Your task to perform on an android device: create a new album in the google photos Image 0: 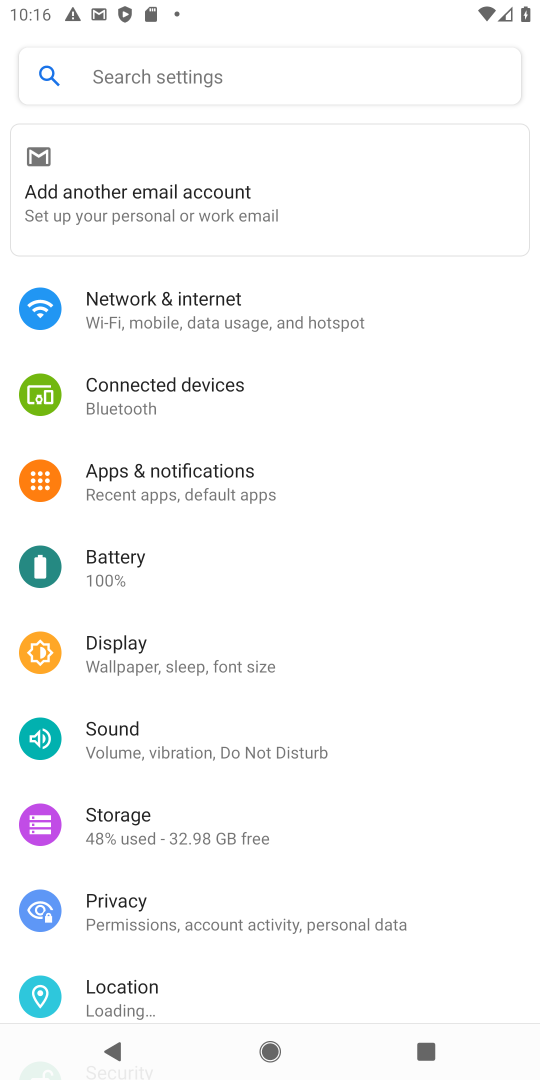
Step 0: press home button
Your task to perform on an android device: create a new album in the google photos Image 1: 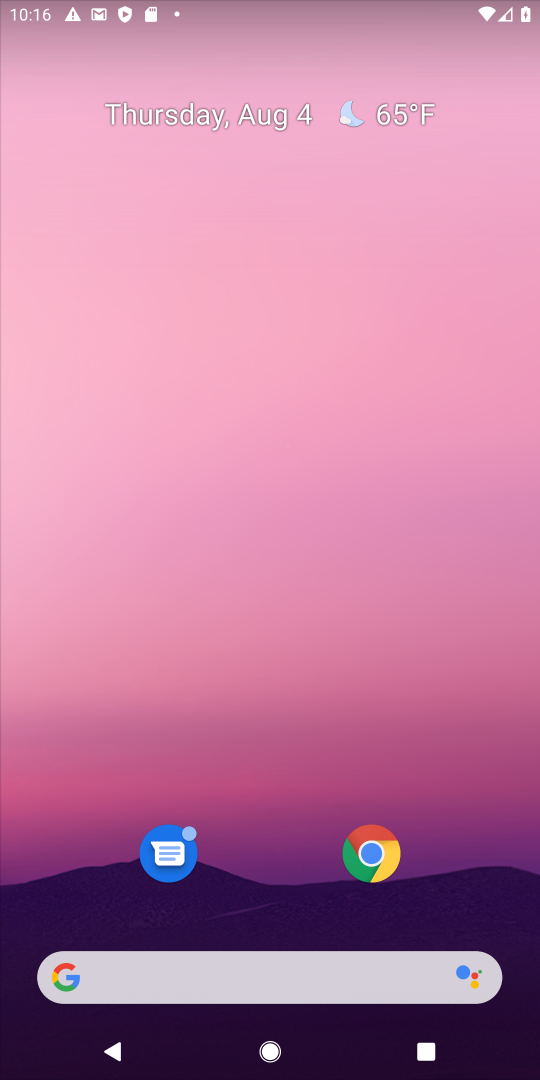
Step 1: drag from (258, 910) to (266, 37)
Your task to perform on an android device: create a new album in the google photos Image 2: 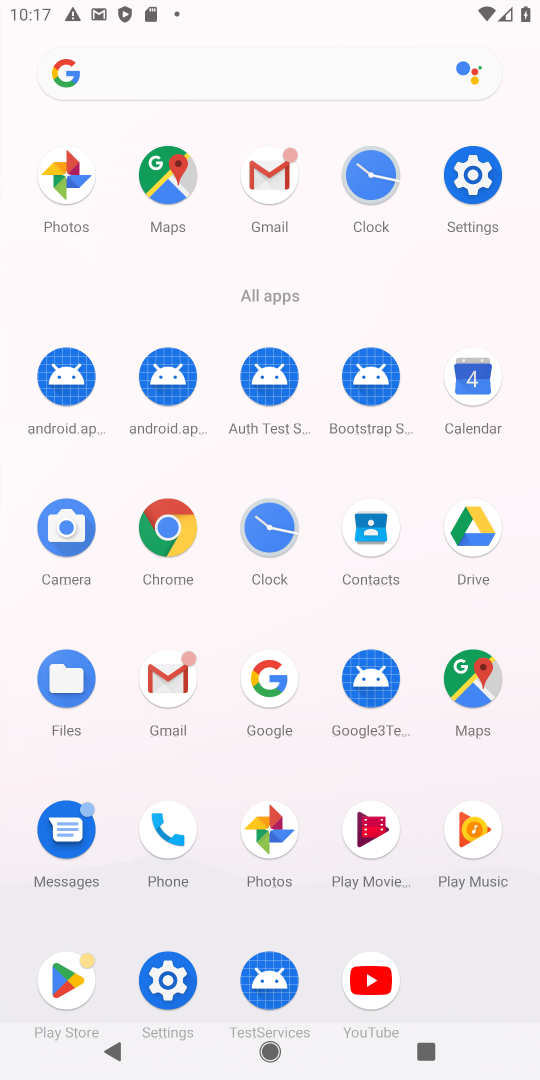
Step 2: click (259, 825)
Your task to perform on an android device: create a new album in the google photos Image 3: 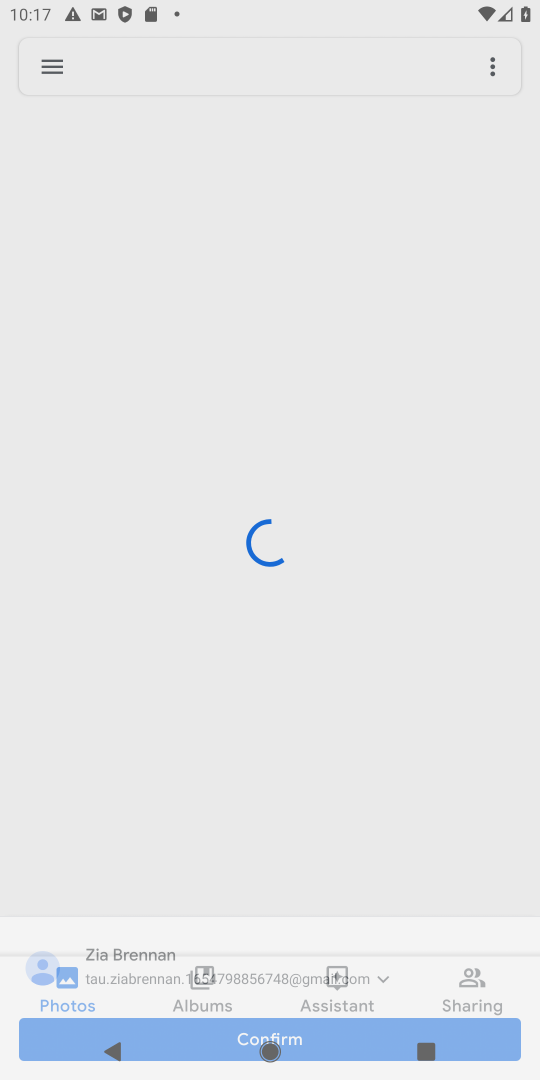
Step 3: click (199, 977)
Your task to perform on an android device: create a new album in the google photos Image 4: 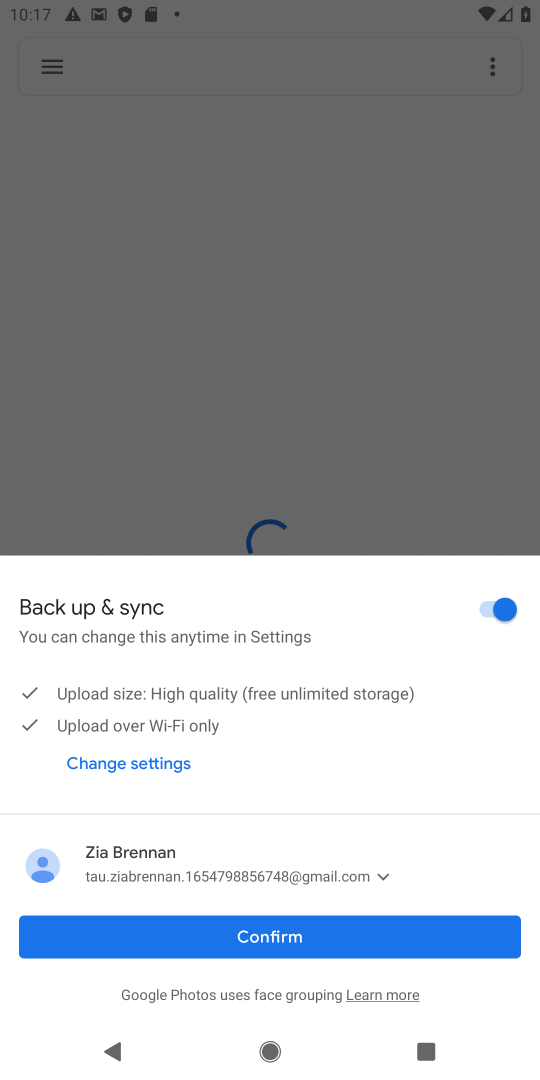
Step 4: click (200, 943)
Your task to perform on an android device: create a new album in the google photos Image 5: 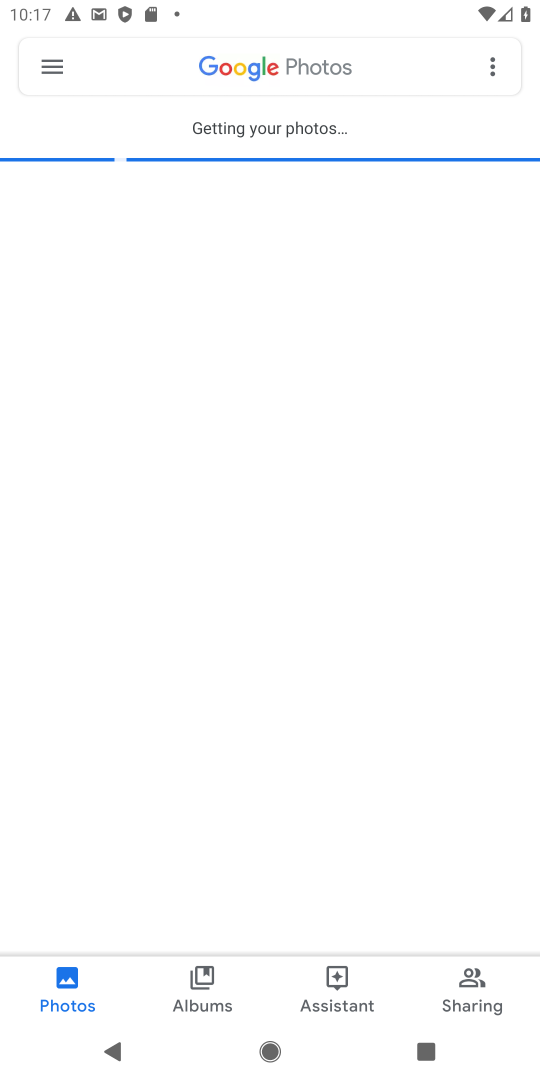
Step 5: click (218, 993)
Your task to perform on an android device: create a new album in the google photos Image 6: 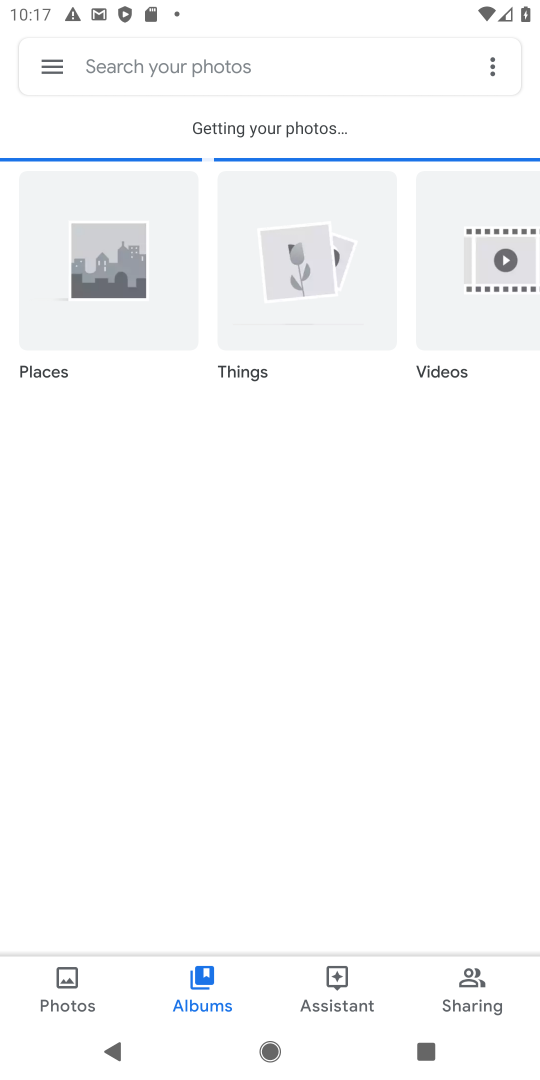
Step 6: task complete